Your task to perform on an android device: open chrome and create a bookmark for the current page Image 0: 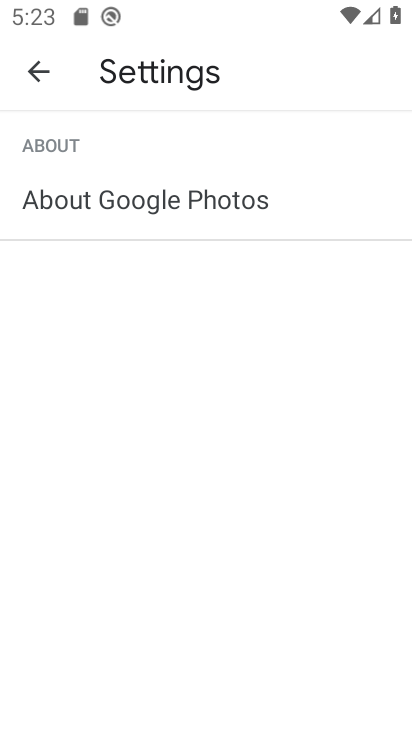
Step 0: press back button
Your task to perform on an android device: open chrome and create a bookmark for the current page Image 1: 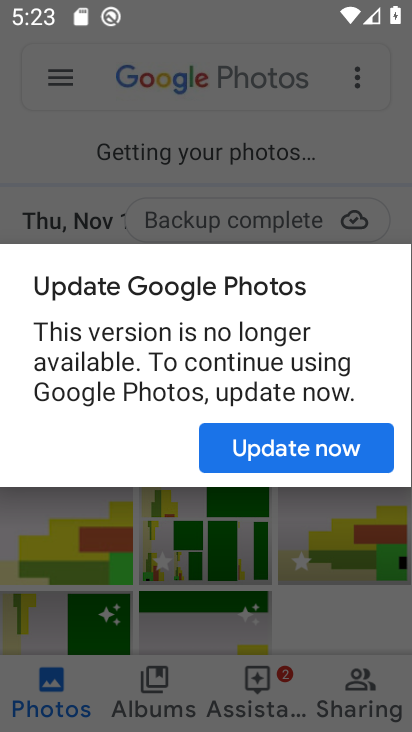
Step 1: press home button
Your task to perform on an android device: open chrome and create a bookmark for the current page Image 2: 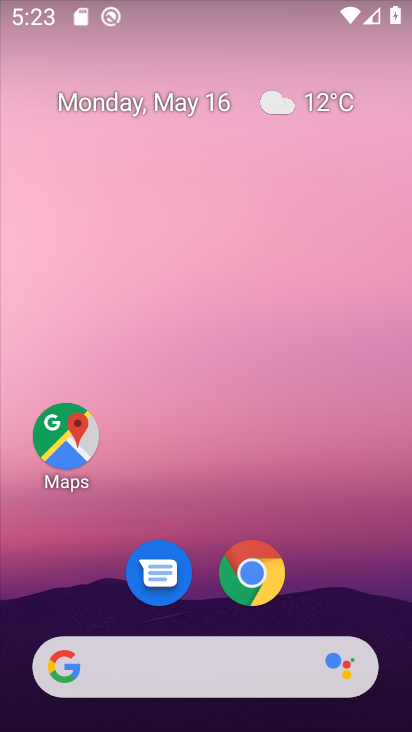
Step 2: click (257, 565)
Your task to perform on an android device: open chrome and create a bookmark for the current page Image 3: 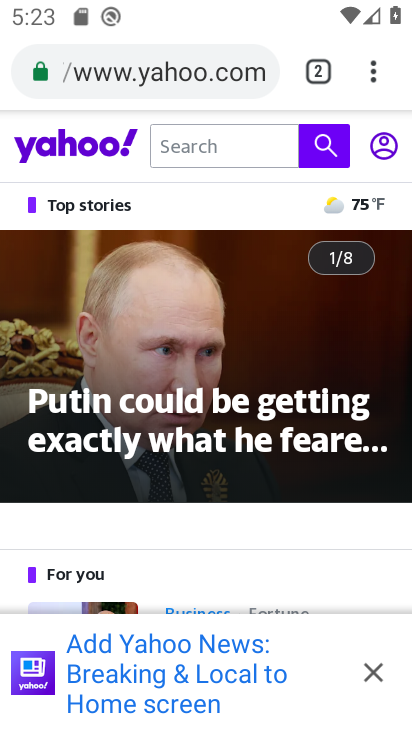
Step 3: task complete